Your task to perform on an android device: turn pop-ups on in chrome Image 0: 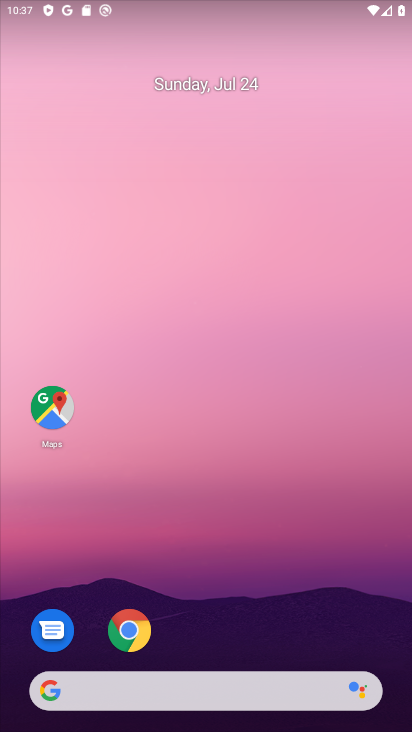
Step 0: press home button
Your task to perform on an android device: turn pop-ups on in chrome Image 1: 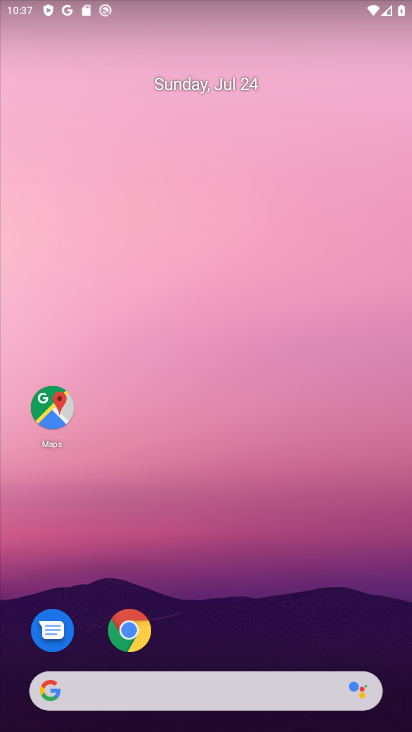
Step 1: click (121, 621)
Your task to perform on an android device: turn pop-ups on in chrome Image 2: 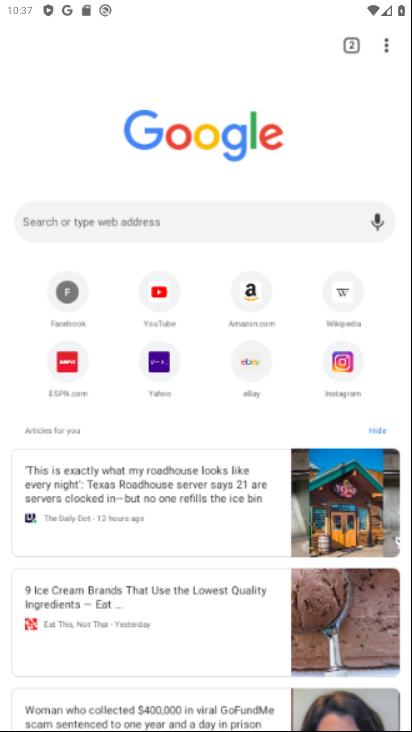
Step 2: drag from (384, 45) to (223, 375)
Your task to perform on an android device: turn pop-ups on in chrome Image 3: 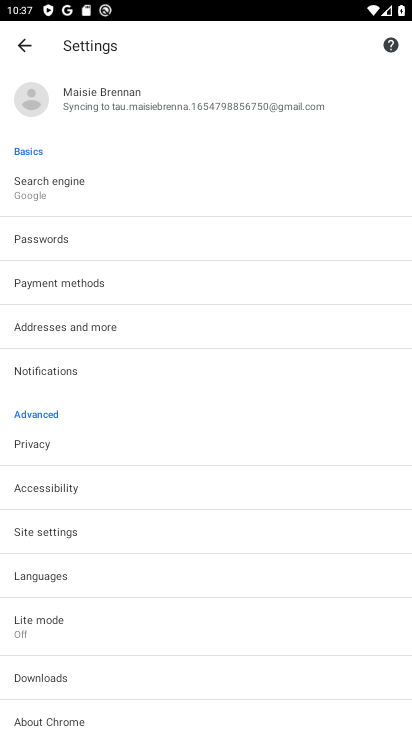
Step 3: click (53, 531)
Your task to perform on an android device: turn pop-ups on in chrome Image 4: 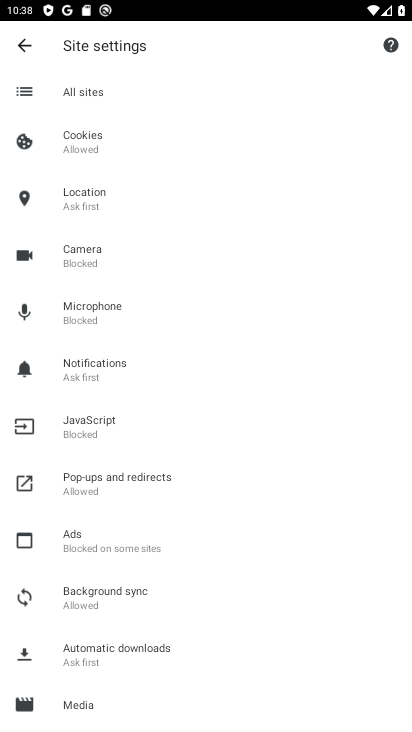
Step 4: click (179, 481)
Your task to perform on an android device: turn pop-ups on in chrome Image 5: 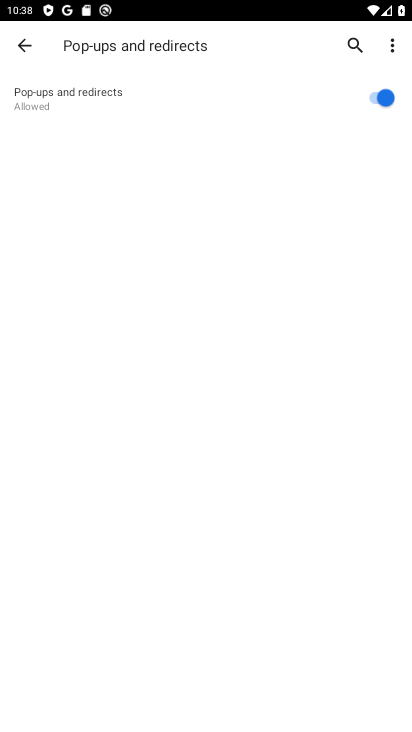
Step 5: task complete